Your task to perform on an android device: Open notification settings Image 0: 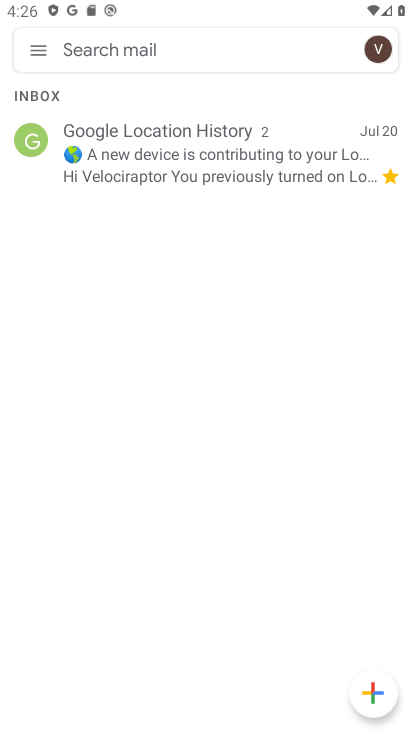
Step 0: press back button
Your task to perform on an android device: Open notification settings Image 1: 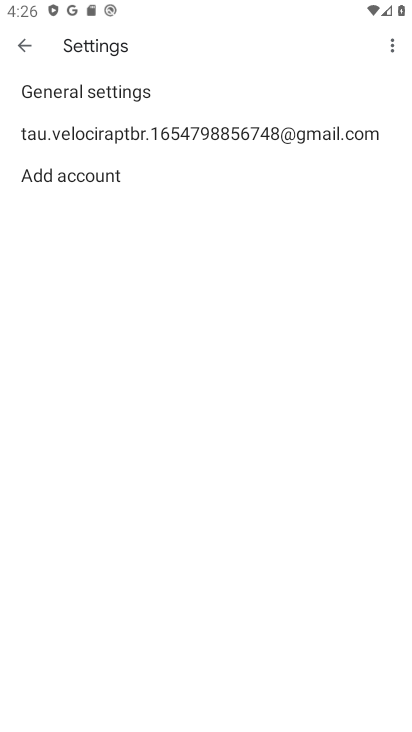
Step 1: press back button
Your task to perform on an android device: Open notification settings Image 2: 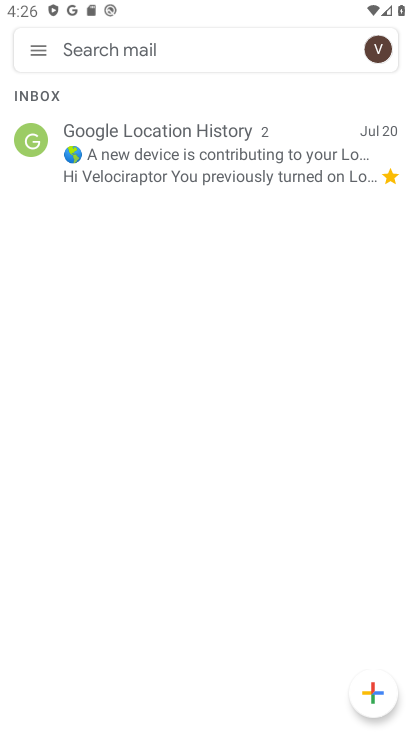
Step 2: click (45, 54)
Your task to perform on an android device: Open notification settings Image 3: 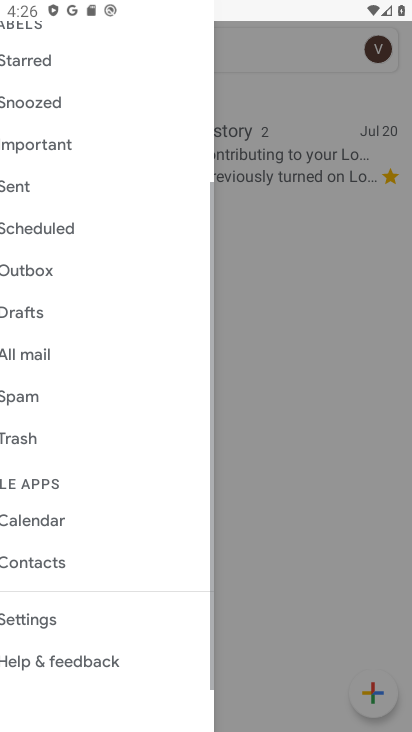
Step 3: press back button
Your task to perform on an android device: Open notification settings Image 4: 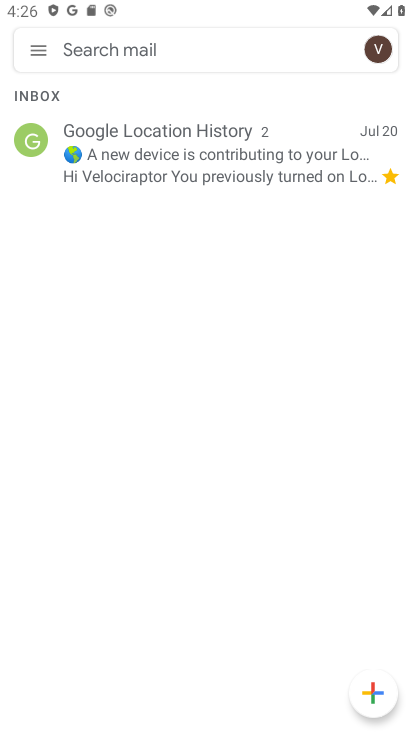
Step 4: press home button
Your task to perform on an android device: Open notification settings Image 5: 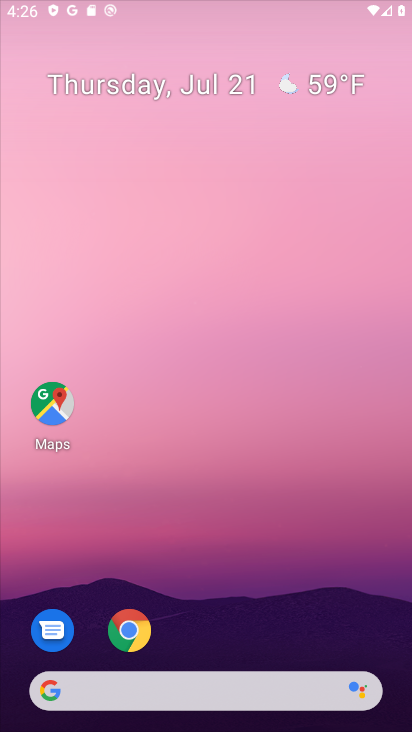
Step 5: press back button
Your task to perform on an android device: Open notification settings Image 6: 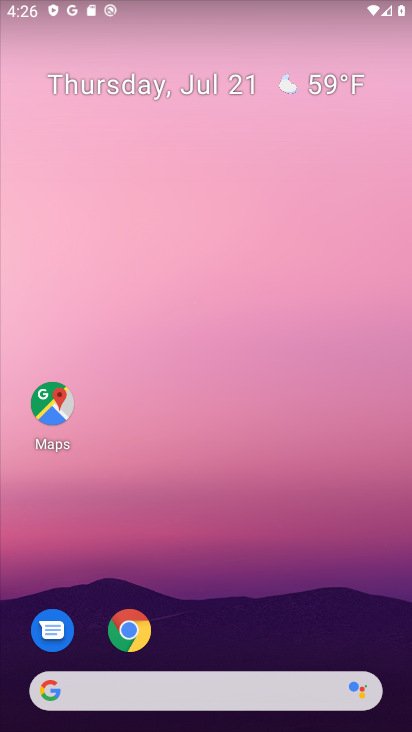
Step 6: drag from (261, 190) to (261, 146)
Your task to perform on an android device: Open notification settings Image 7: 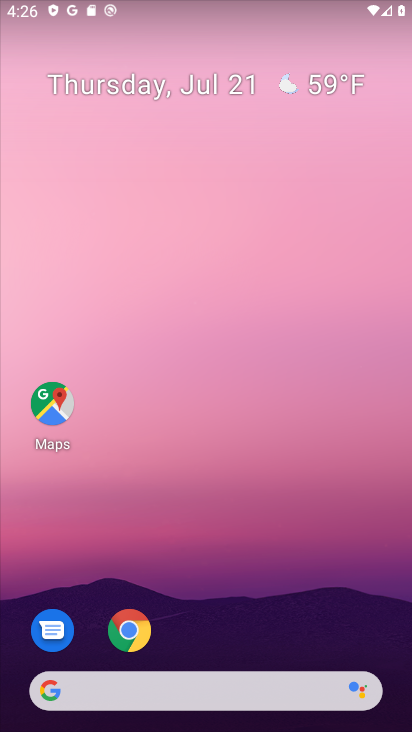
Step 7: drag from (226, 617) to (220, 130)
Your task to perform on an android device: Open notification settings Image 8: 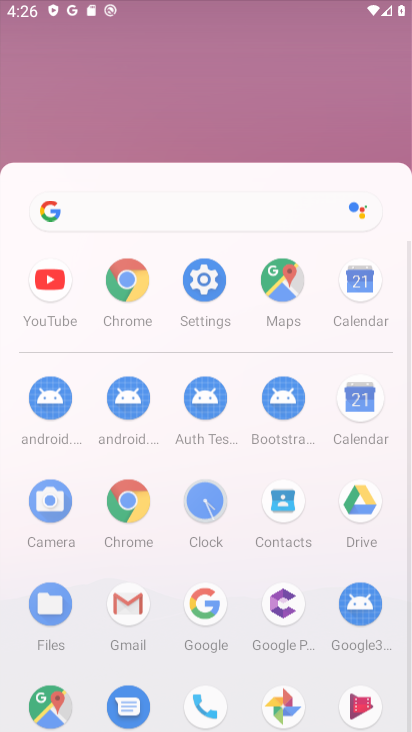
Step 8: drag from (235, 458) to (246, 18)
Your task to perform on an android device: Open notification settings Image 9: 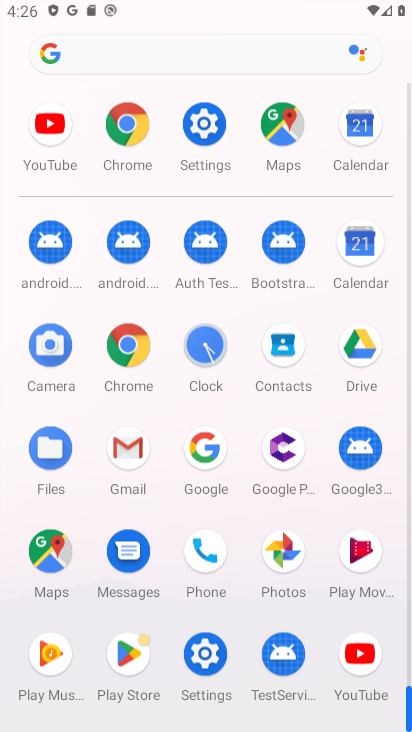
Step 9: drag from (231, 381) to (231, 84)
Your task to perform on an android device: Open notification settings Image 10: 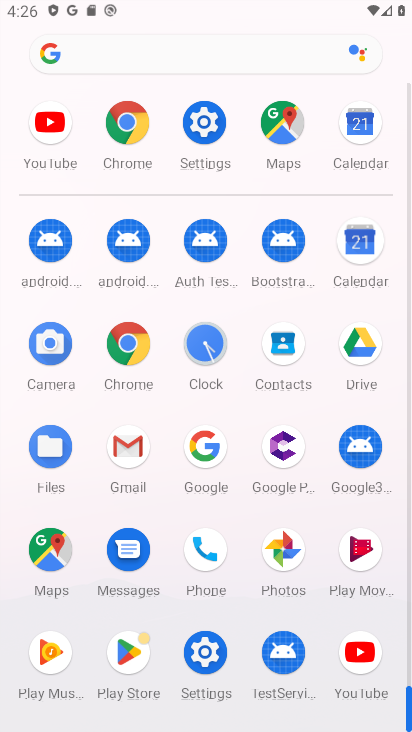
Step 10: click (195, 120)
Your task to perform on an android device: Open notification settings Image 11: 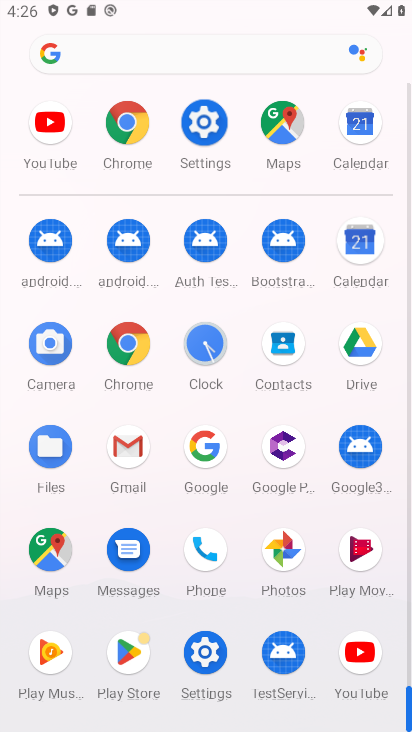
Step 11: click (197, 124)
Your task to perform on an android device: Open notification settings Image 12: 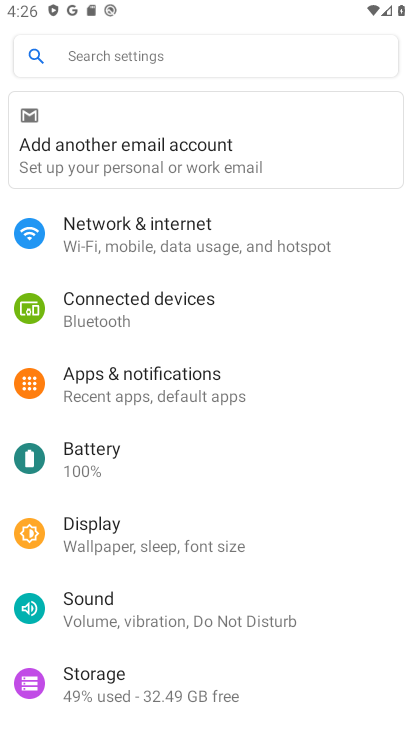
Step 12: click (140, 386)
Your task to perform on an android device: Open notification settings Image 13: 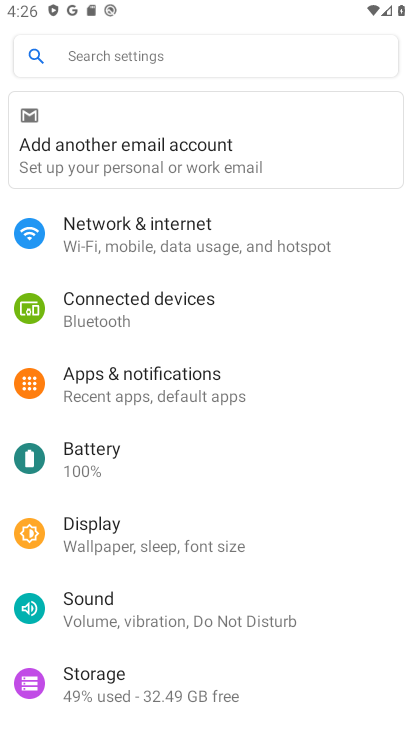
Step 13: click (138, 386)
Your task to perform on an android device: Open notification settings Image 14: 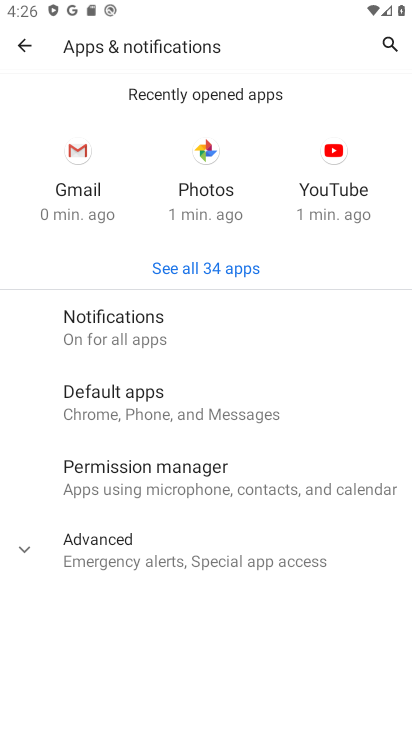
Step 14: click (143, 389)
Your task to perform on an android device: Open notification settings Image 15: 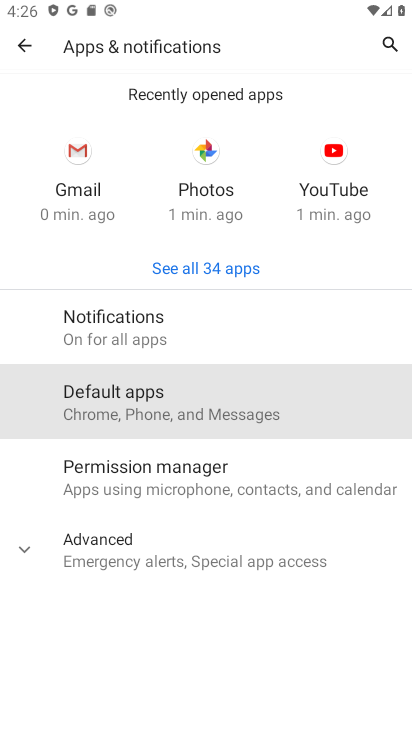
Step 15: task complete